Your task to perform on an android device: Open sound settings Image 0: 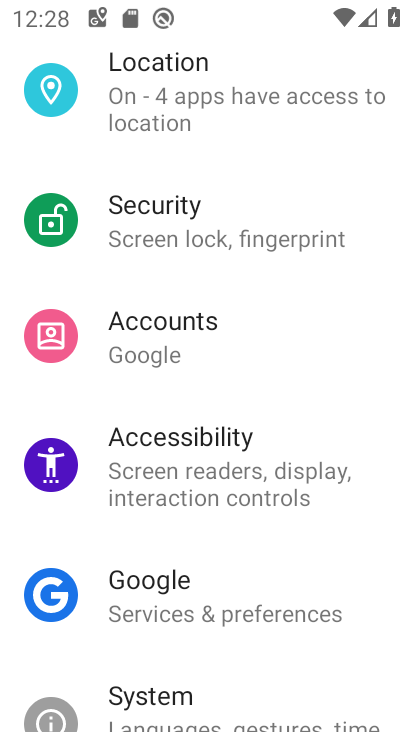
Step 0: drag from (375, 303) to (359, 414)
Your task to perform on an android device: Open sound settings Image 1: 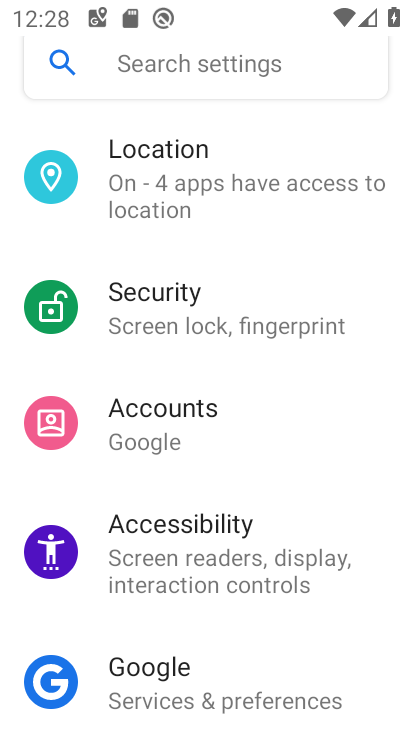
Step 1: drag from (366, 276) to (364, 371)
Your task to perform on an android device: Open sound settings Image 2: 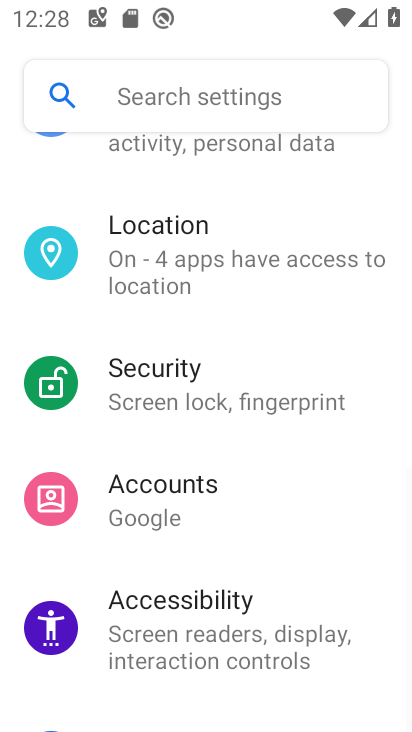
Step 2: drag from (367, 315) to (370, 437)
Your task to perform on an android device: Open sound settings Image 3: 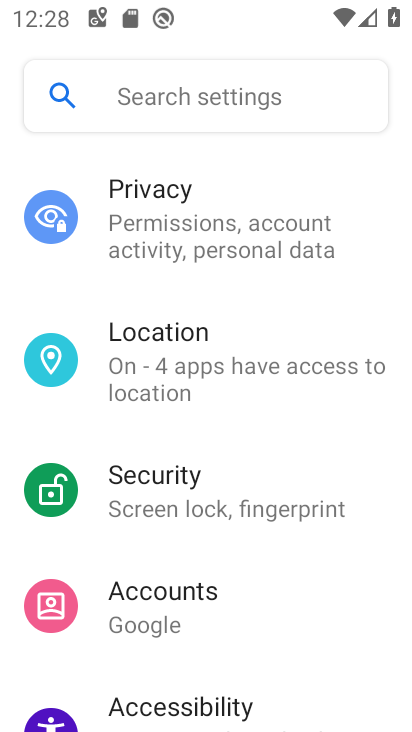
Step 3: drag from (376, 308) to (377, 398)
Your task to perform on an android device: Open sound settings Image 4: 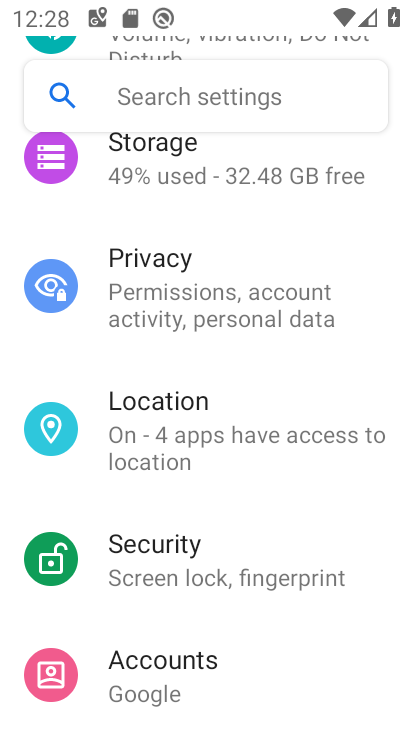
Step 4: drag from (385, 321) to (387, 419)
Your task to perform on an android device: Open sound settings Image 5: 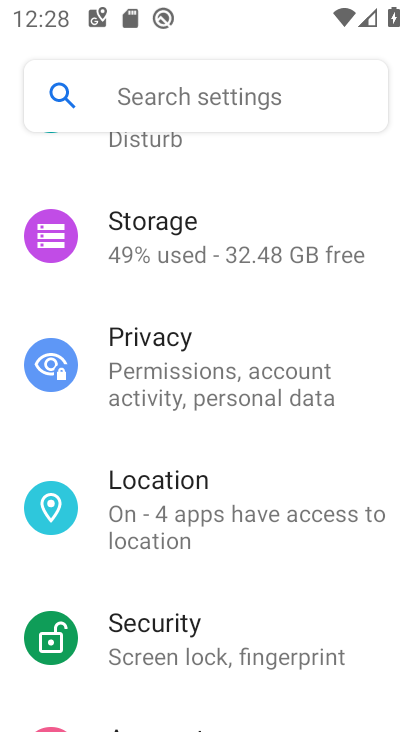
Step 5: drag from (379, 308) to (380, 398)
Your task to perform on an android device: Open sound settings Image 6: 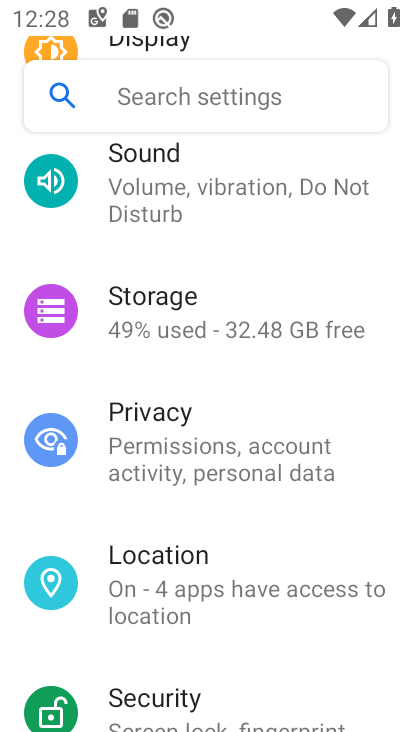
Step 6: drag from (380, 322) to (377, 408)
Your task to perform on an android device: Open sound settings Image 7: 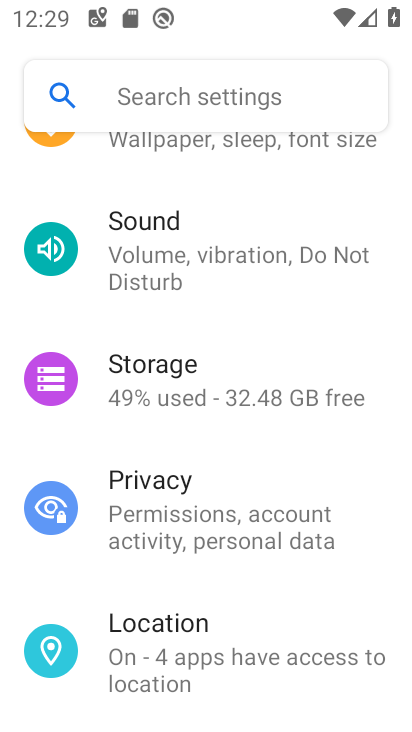
Step 7: drag from (375, 333) to (374, 429)
Your task to perform on an android device: Open sound settings Image 8: 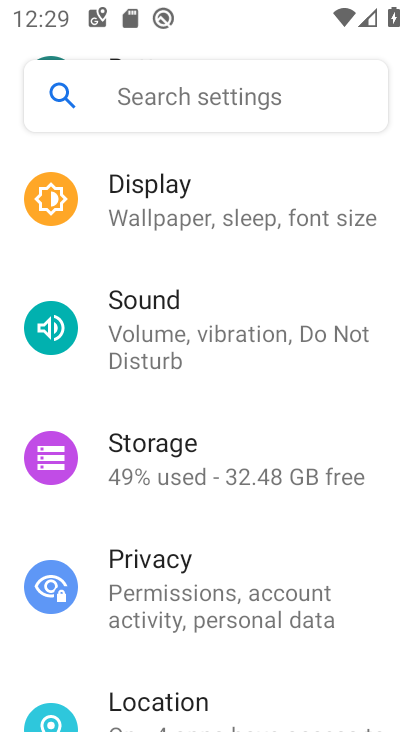
Step 8: drag from (376, 326) to (376, 434)
Your task to perform on an android device: Open sound settings Image 9: 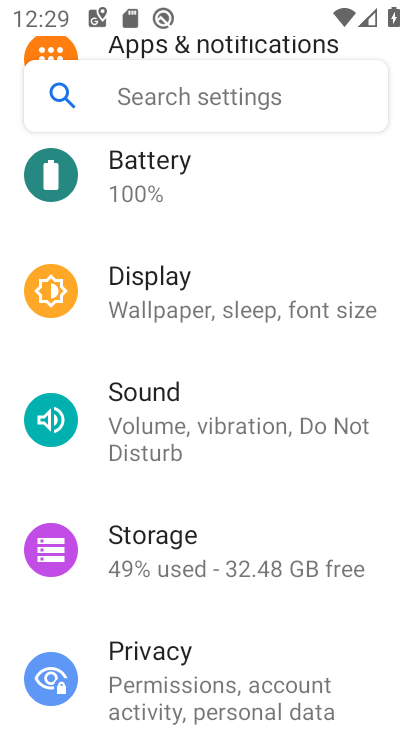
Step 9: drag from (381, 357) to (381, 439)
Your task to perform on an android device: Open sound settings Image 10: 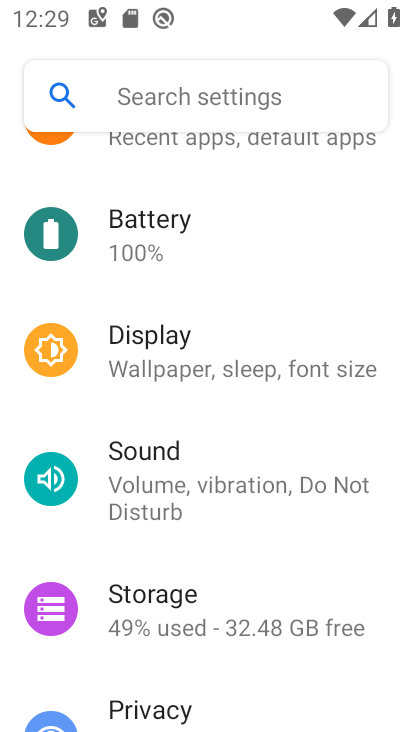
Step 10: click (353, 482)
Your task to perform on an android device: Open sound settings Image 11: 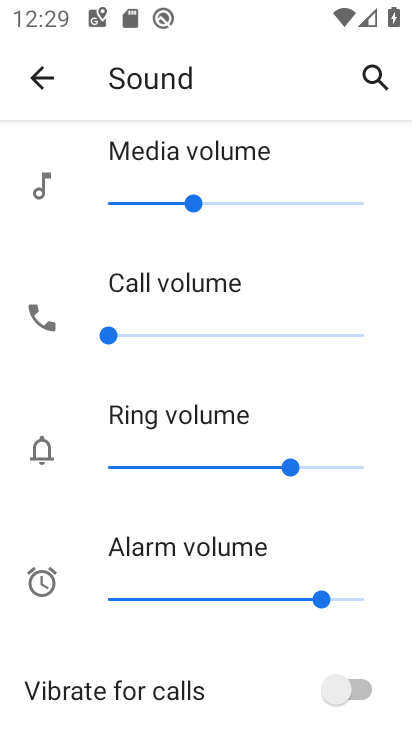
Step 11: task complete